Your task to perform on an android device: open chrome privacy settings Image 0: 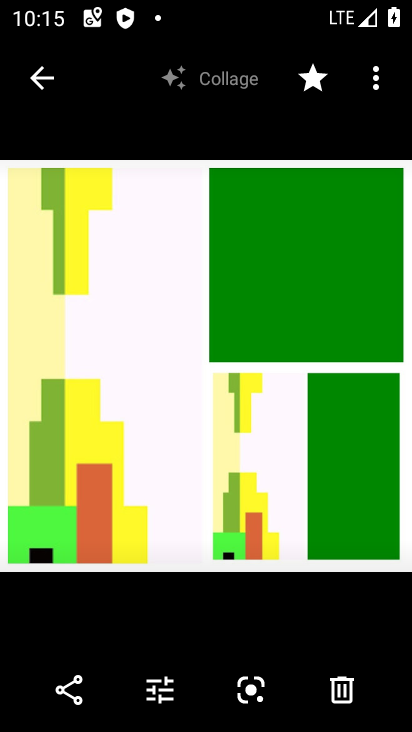
Step 0: press home button
Your task to perform on an android device: open chrome privacy settings Image 1: 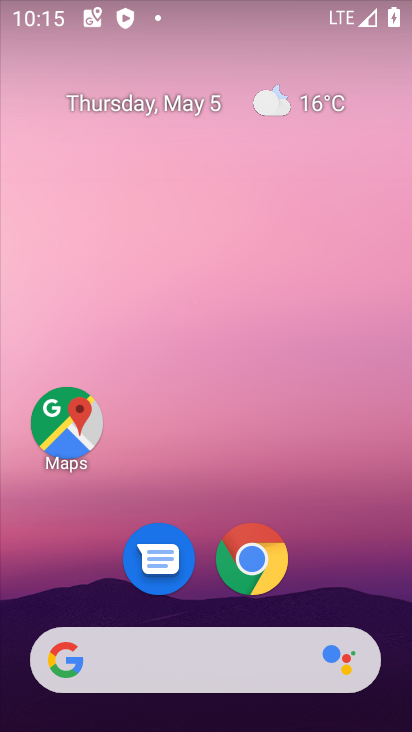
Step 1: click (249, 560)
Your task to perform on an android device: open chrome privacy settings Image 2: 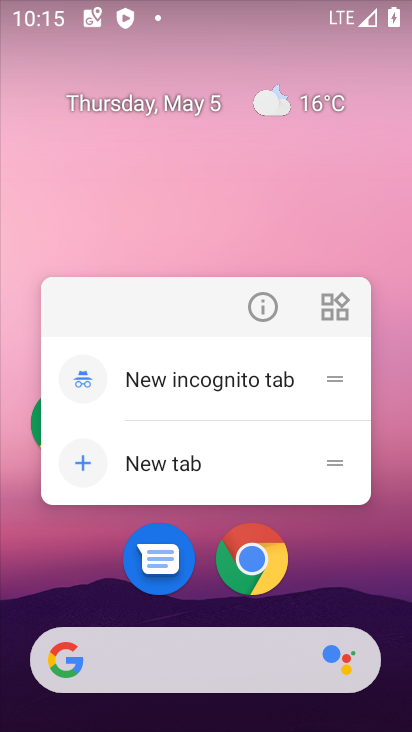
Step 2: click (257, 548)
Your task to perform on an android device: open chrome privacy settings Image 3: 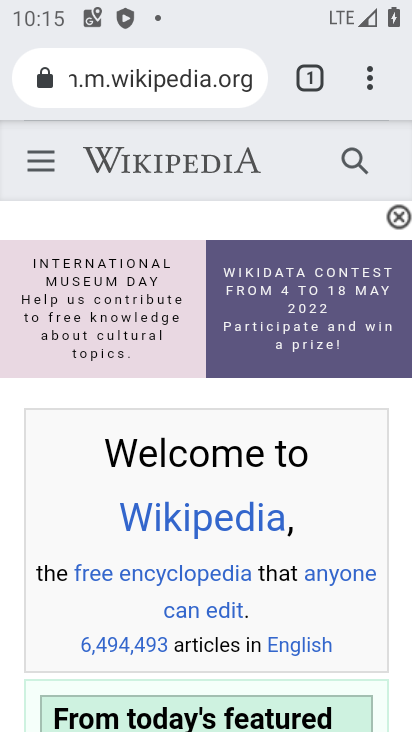
Step 3: click (376, 90)
Your task to perform on an android device: open chrome privacy settings Image 4: 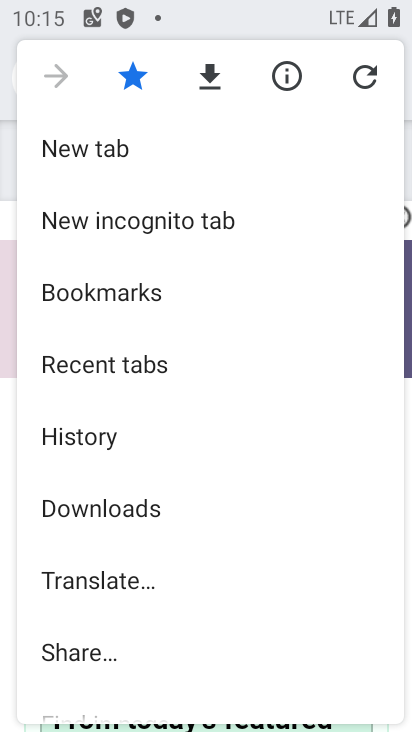
Step 4: drag from (123, 619) to (207, 80)
Your task to perform on an android device: open chrome privacy settings Image 5: 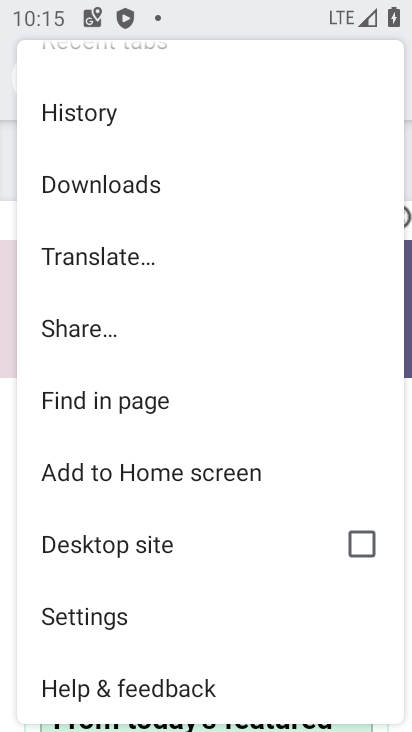
Step 5: click (105, 622)
Your task to perform on an android device: open chrome privacy settings Image 6: 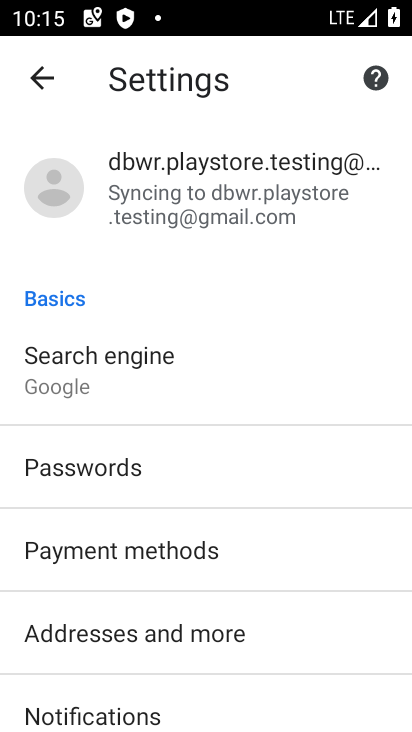
Step 6: drag from (130, 626) to (209, 211)
Your task to perform on an android device: open chrome privacy settings Image 7: 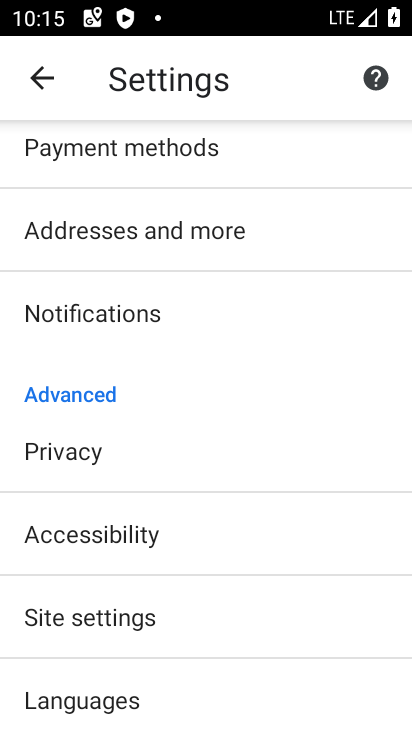
Step 7: click (91, 464)
Your task to perform on an android device: open chrome privacy settings Image 8: 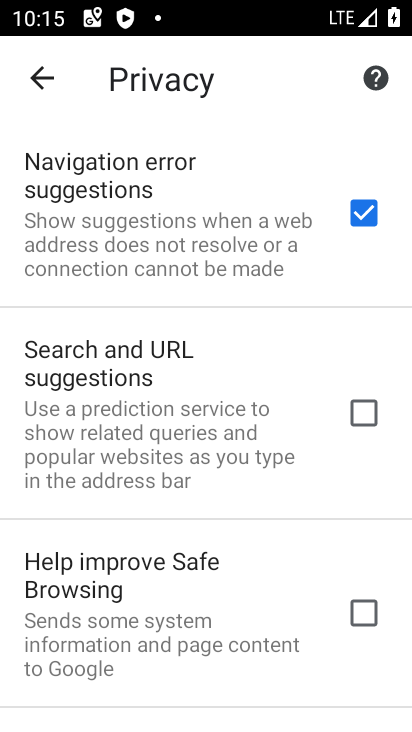
Step 8: task complete